Your task to perform on an android device: turn off improve location accuracy Image 0: 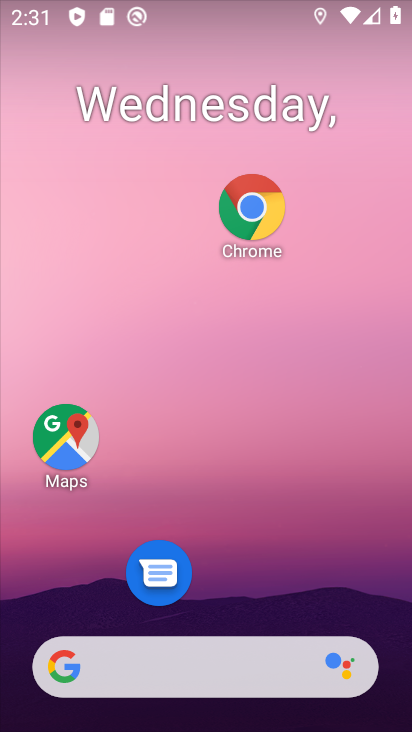
Step 0: drag from (246, 500) to (248, 339)
Your task to perform on an android device: turn off improve location accuracy Image 1: 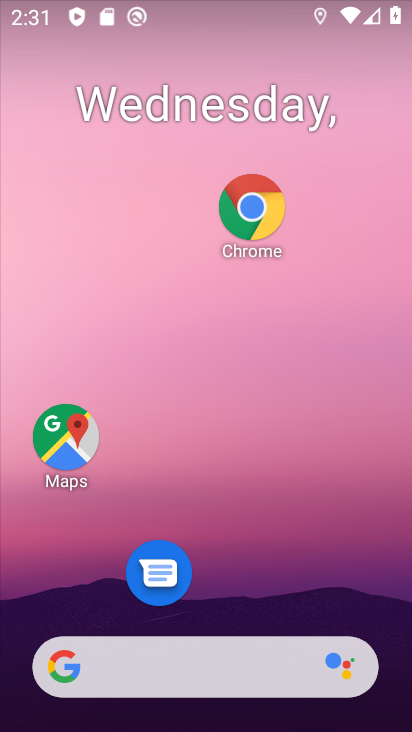
Step 1: drag from (204, 623) to (346, 183)
Your task to perform on an android device: turn off improve location accuracy Image 2: 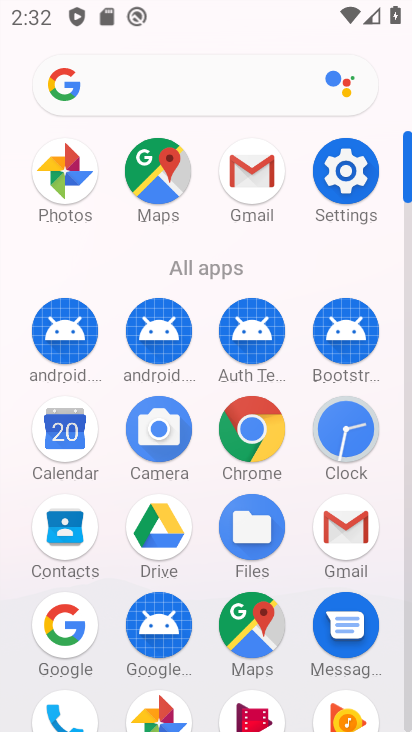
Step 2: click (342, 182)
Your task to perform on an android device: turn off improve location accuracy Image 3: 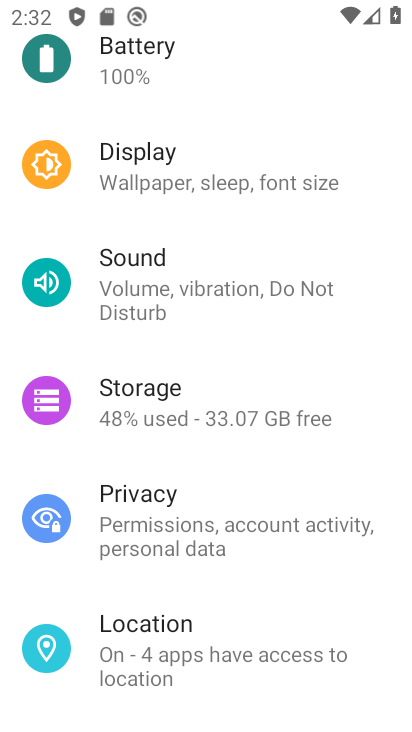
Step 3: click (225, 655)
Your task to perform on an android device: turn off improve location accuracy Image 4: 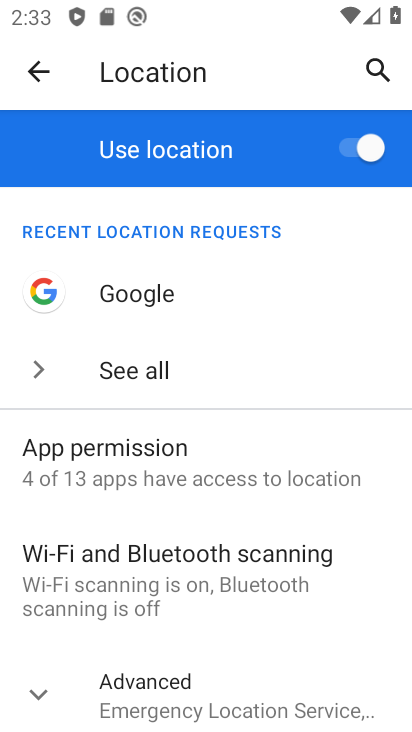
Step 4: click (239, 682)
Your task to perform on an android device: turn off improve location accuracy Image 5: 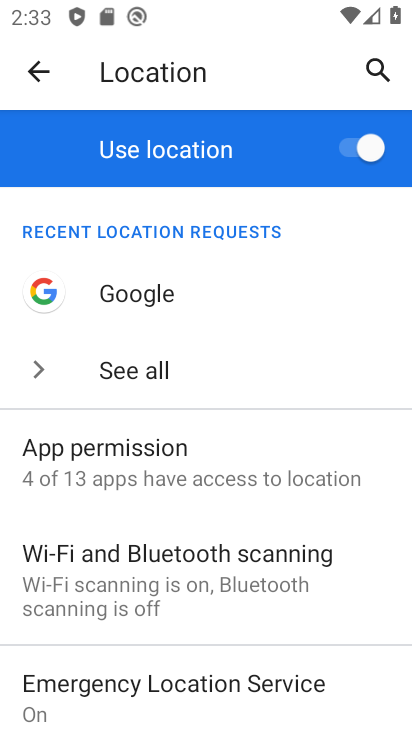
Step 5: drag from (302, 483) to (344, 209)
Your task to perform on an android device: turn off improve location accuracy Image 6: 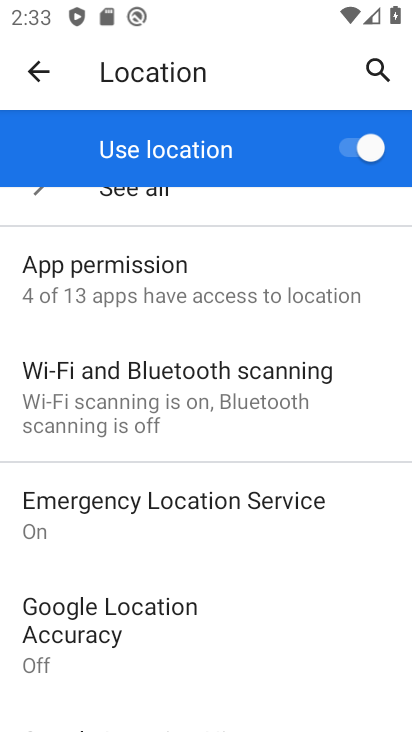
Step 6: drag from (200, 609) to (232, 403)
Your task to perform on an android device: turn off improve location accuracy Image 7: 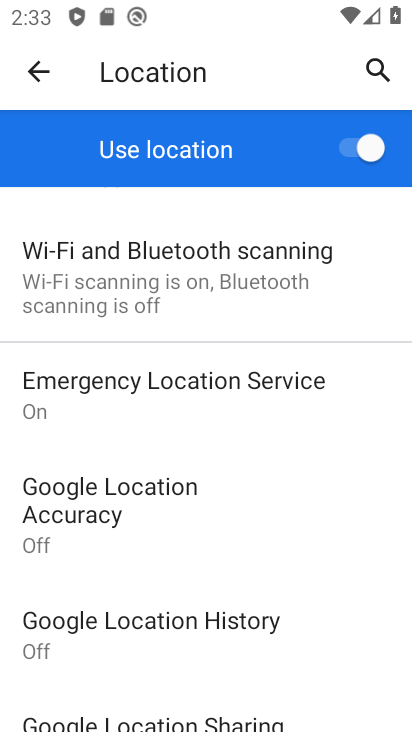
Step 7: click (214, 501)
Your task to perform on an android device: turn off improve location accuracy Image 8: 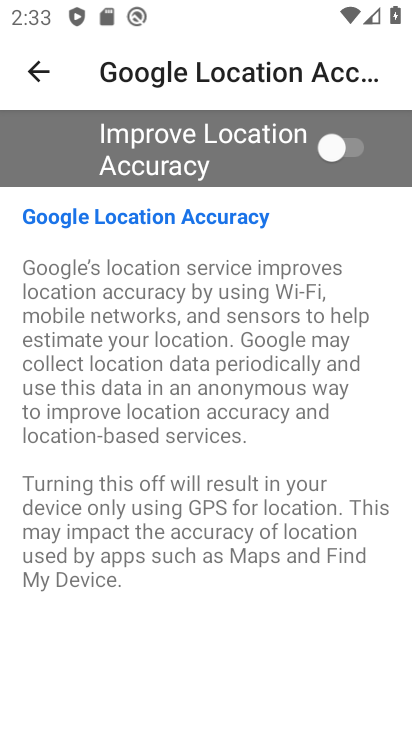
Step 8: task complete